Your task to perform on an android device: toggle notification dots Image 0: 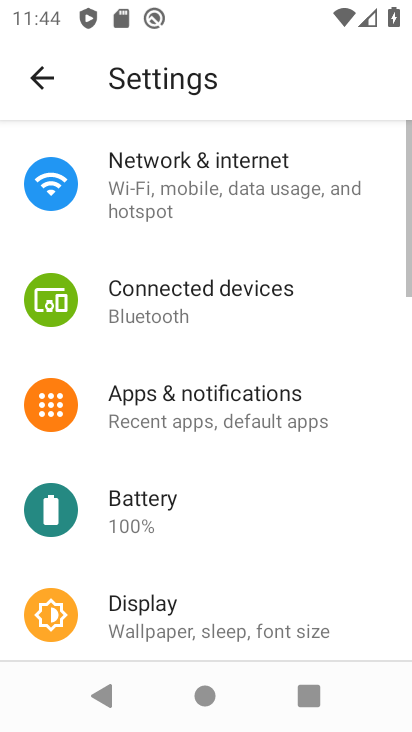
Step 0: press home button
Your task to perform on an android device: toggle notification dots Image 1: 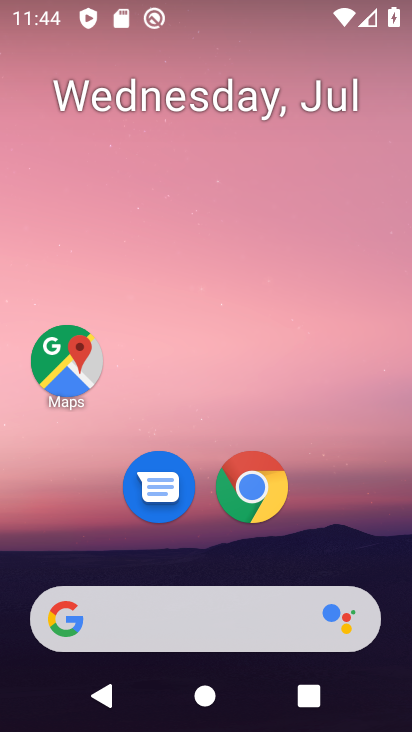
Step 1: drag from (149, 633) to (200, 163)
Your task to perform on an android device: toggle notification dots Image 2: 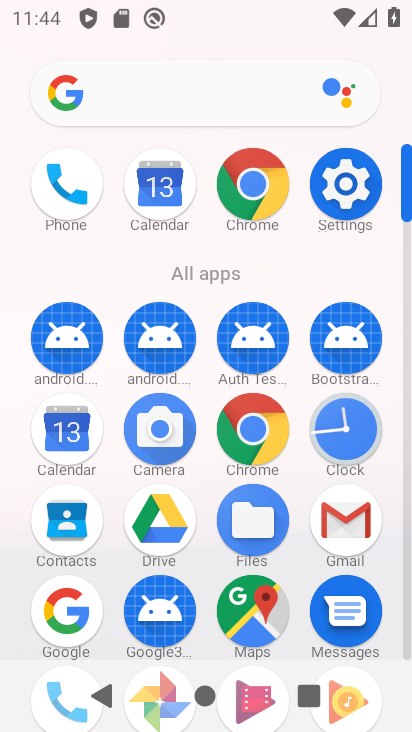
Step 2: click (348, 204)
Your task to perform on an android device: toggle notification dots Image 3: 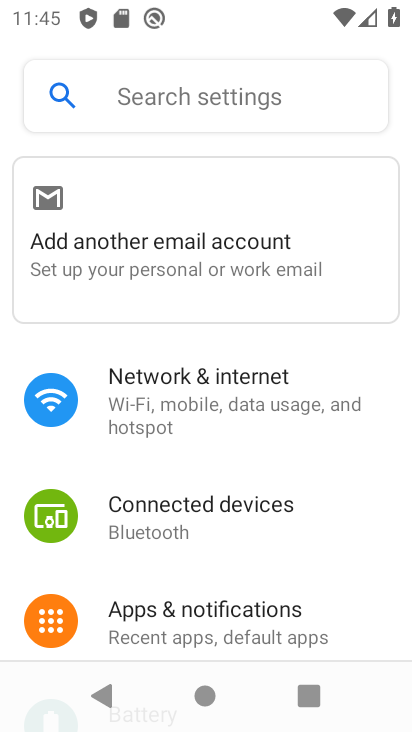
Step 3: click (188, 609)
Your task to perform on an android device: toggle notification dots Image 4: 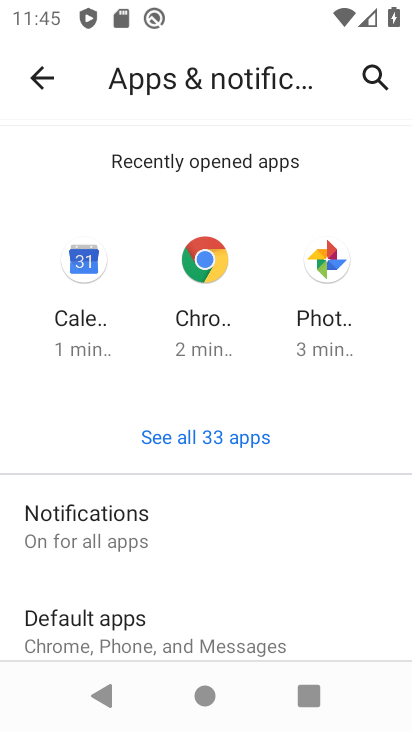
Step 4: drag from (129, 554) to (194, 331)
Your task to perform on an android device: toggle notification dots Image 5: 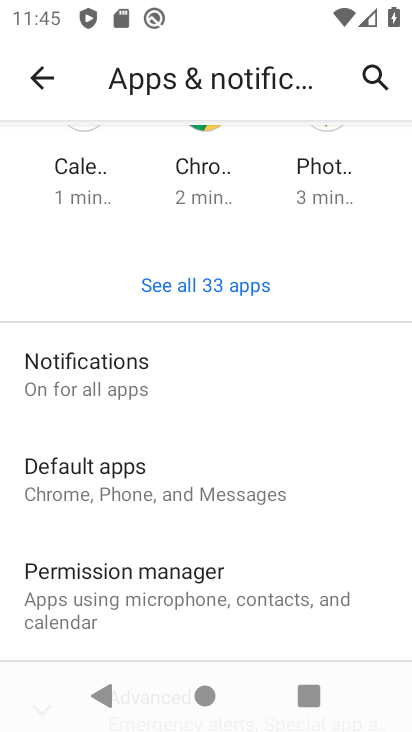
Step 5: click (129, 384)
Your task to perform on an android device: toggle notification dots Image 6: 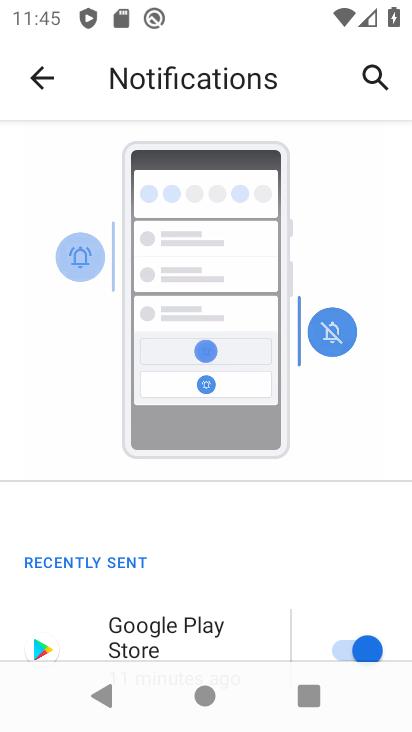
Step 6: drag from (139, 548) to (208, 236)
Your task to perform on an android device: toggle notification dots Image 7: 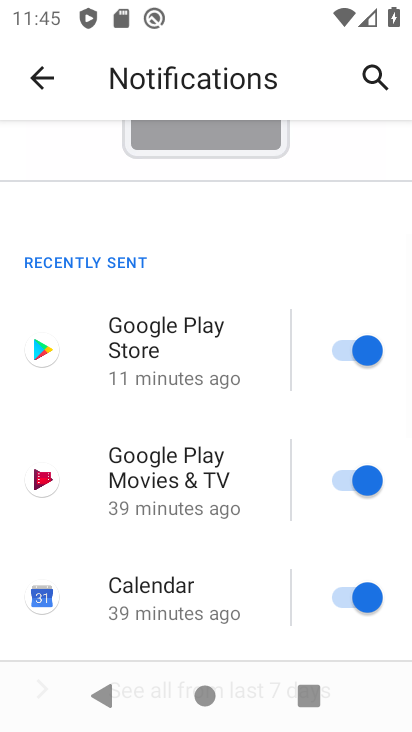
Step 7: drag from (182, 538) to (193, 293)
Your task to perform on an android device: toggle notification dots Image 8: 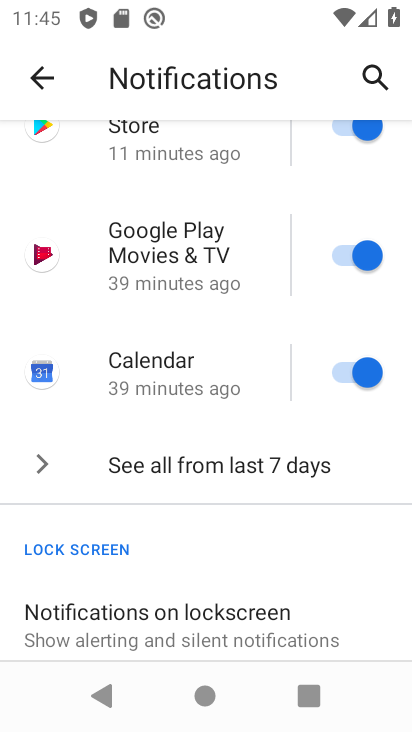
Step 8: drag from (179, 523) to (201, 290)
Your task to perform on an android device: toggle notification dots Image 9: 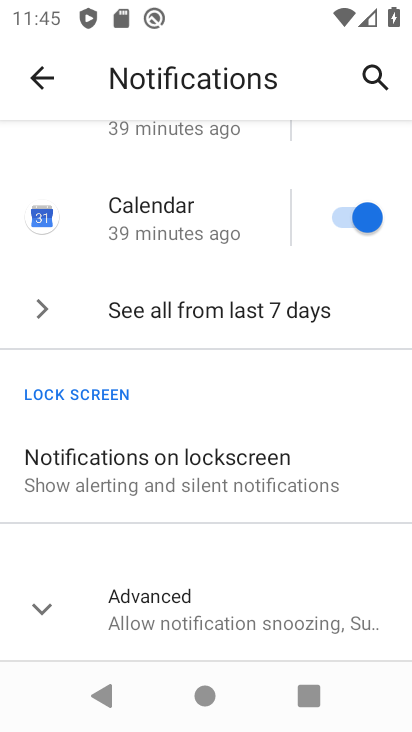
Step 9: click (173, 607)
Your task to perform on an android device: toggle notification dots Image 10: 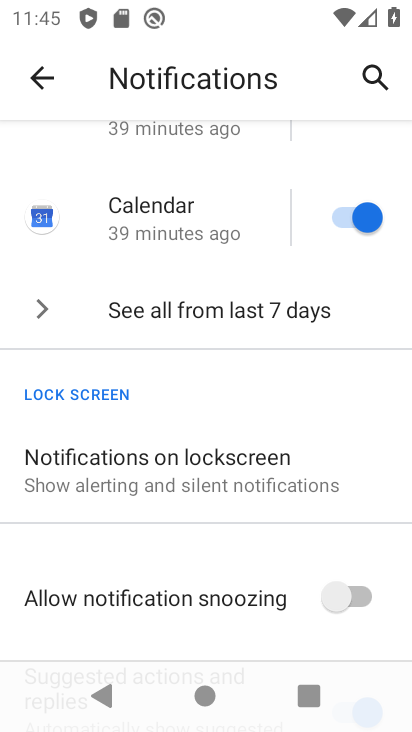
Step 10: drag from (179, 558) to (199, 261)
Your task to perform on an android device: toggle notification dots Image 11: 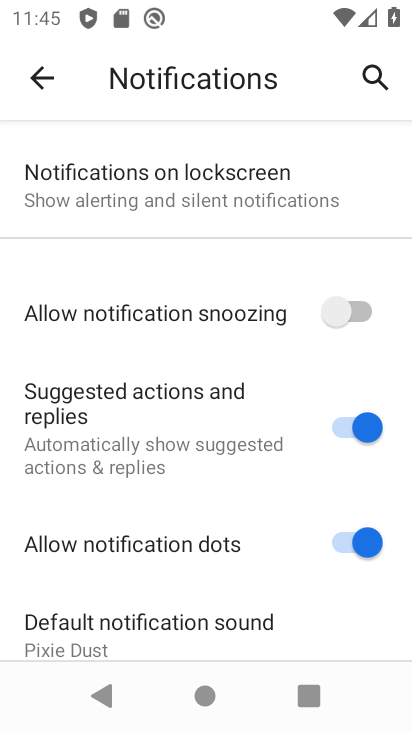
Step 11: click (347, 548)
Your task to perform on an android device: toggle notification dots Image 12: 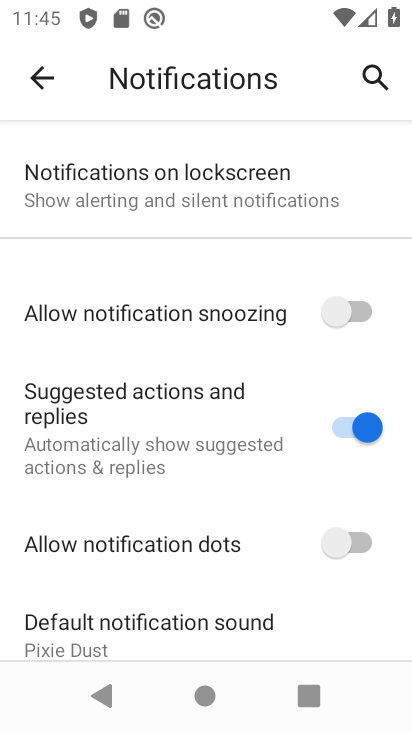
Step 12: task complete